Your task to perform on an android device: Toggle the flashlight Image 0: 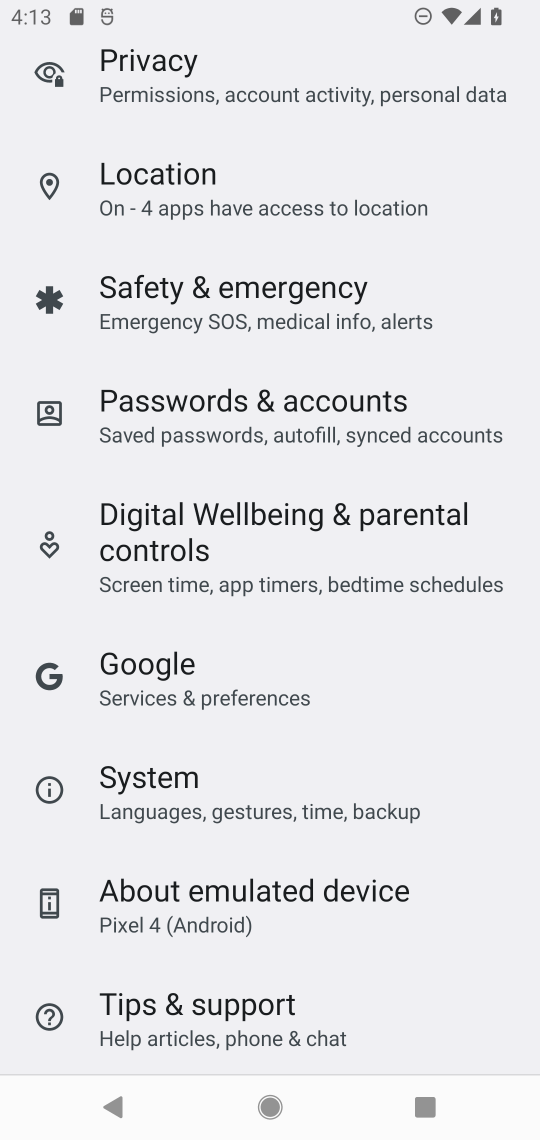
Step 0: task impossible